Your task to perform on an android device: open a bookmark in the chrome app Image 0: 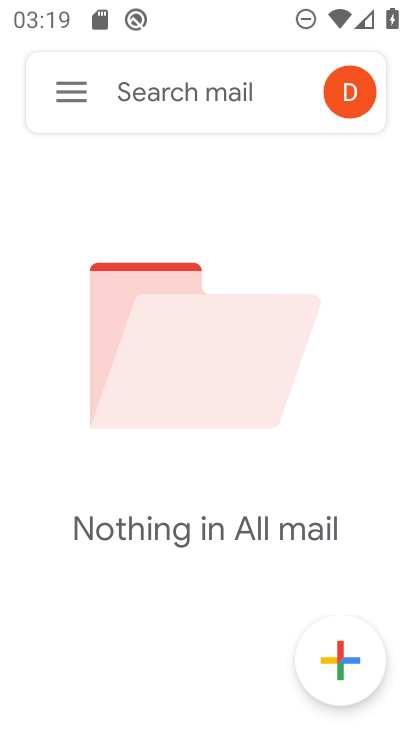
Step 0: press home button
Your task to perform on an android device: open a bookmark in the chrome app Image 1: 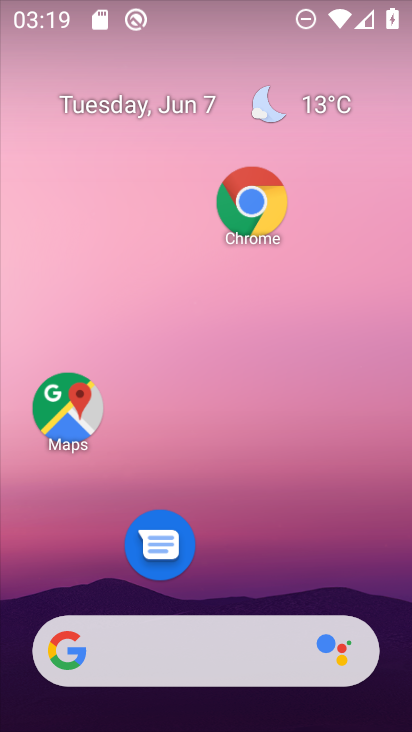
Step 1: click (258, 201)
Your task to perform on an android device: open a bookmark in the chrome app Image 2: 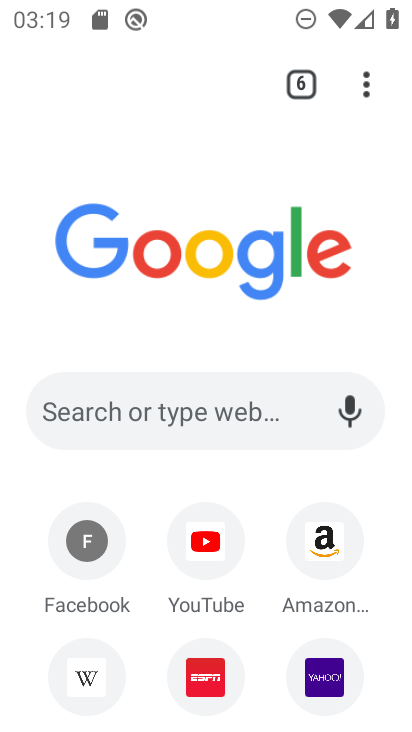
Step 2: click (374, 85)
Your task to perform on an android device: open a bookmark in the chrome app Image 3: 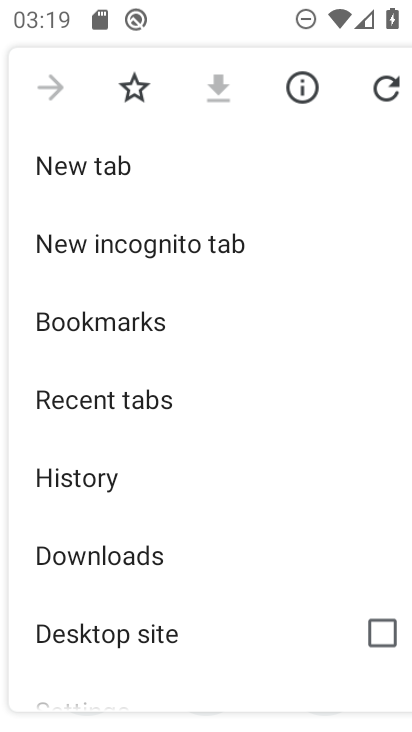
Step 3: click (146, 319)
Your task to perform on an android device: open a bookmark in the chrome app Image 4: 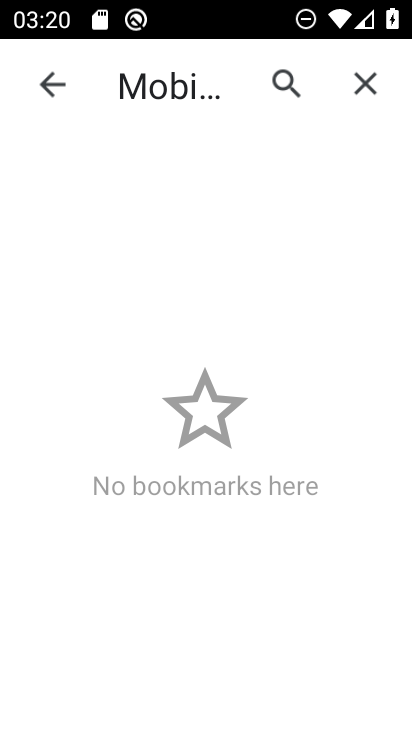
Step 4: task complete